Your task to perform on an android device: Open Google Image 0: 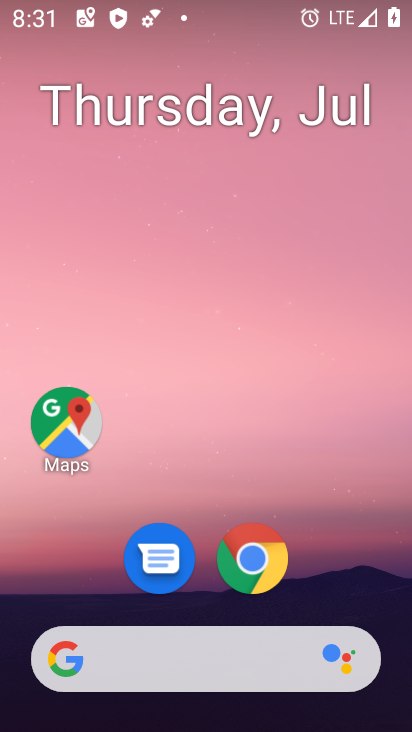
Step 0: drag from (273, 644) to (214, 89)
Your task to perform on an android device: Open Google Image 1: 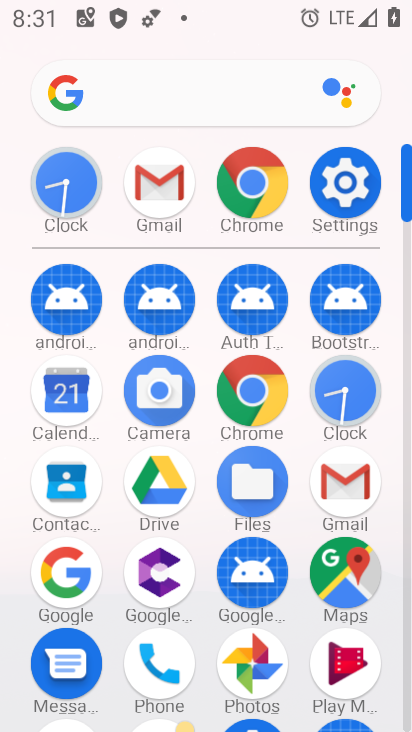
Step 1: drag from (184, 530) to (236, 232)
Your task to perform on an android device: Open Google Image 2: 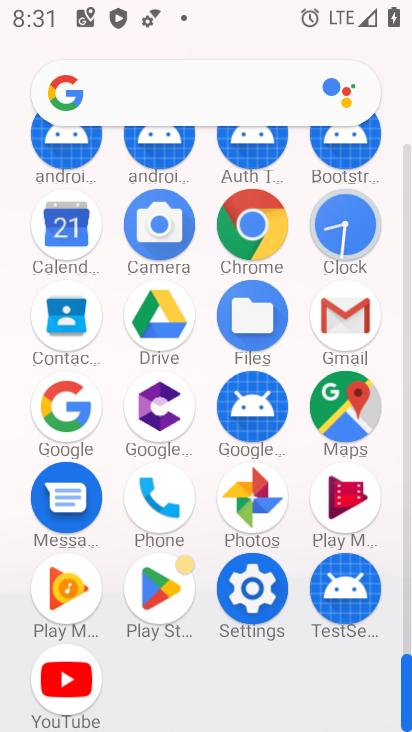
Step 2: click (76, 426)
Your task to perform on an android device: Open Google Image 3: 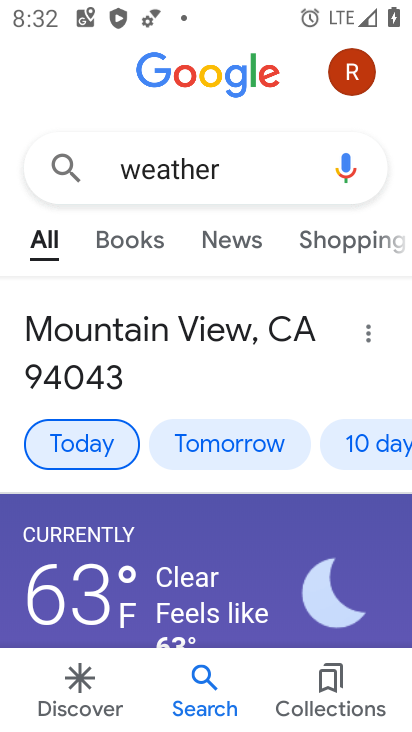
Step 3: task complete